Your task to perform on an android device: add a contact in the contacts app Image 0: 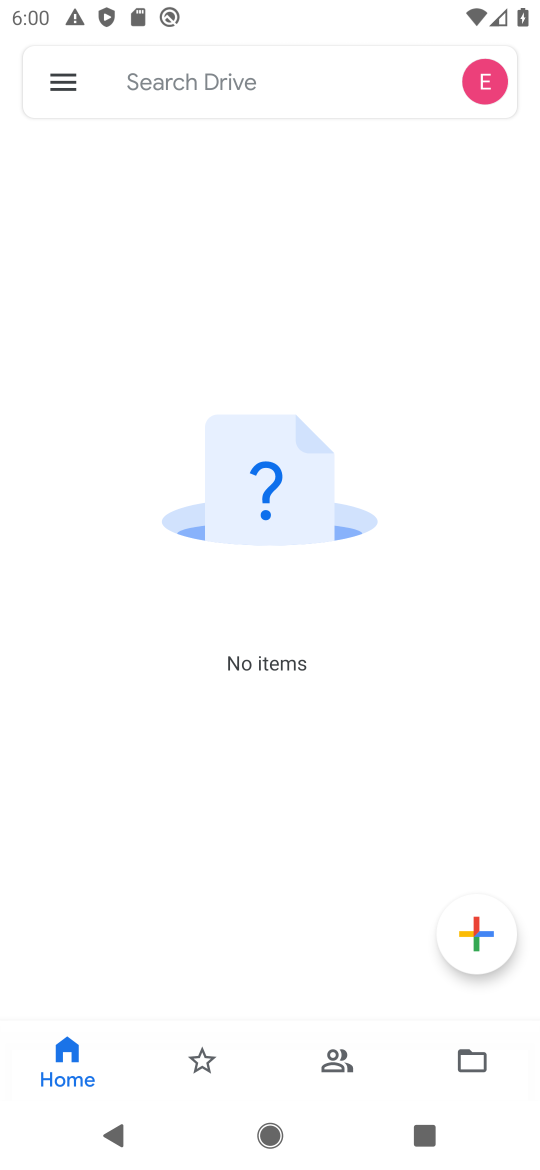
Step 0: press home button
Your task to perform on an android device: add a contact in the contacts app Image 1: 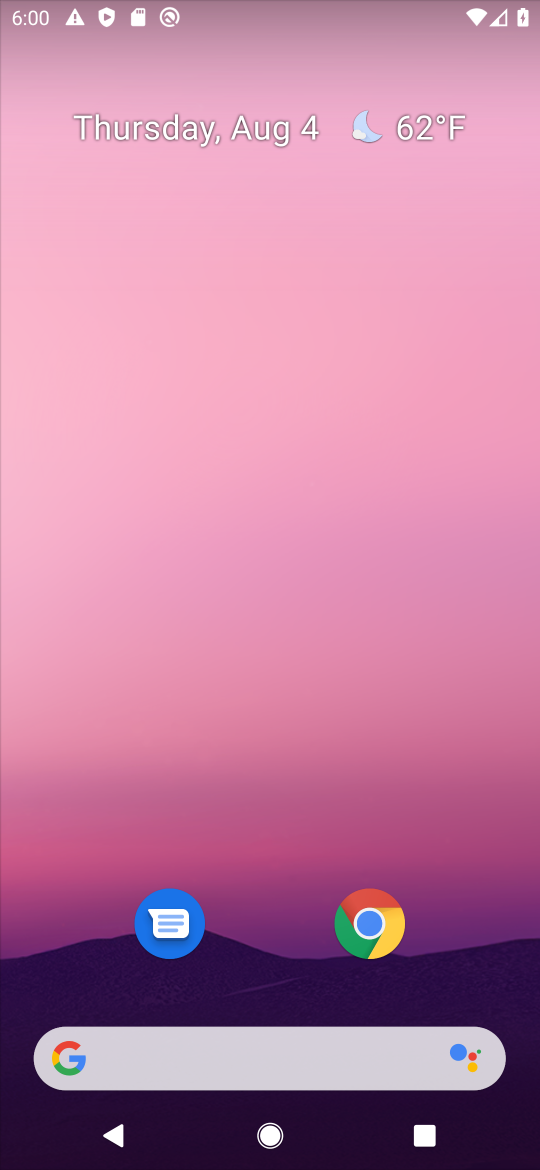
Step 1: drag from (465, 955) to (433, 258)
Your task to perform on an android device: add a contact in the contacts app Image 2: 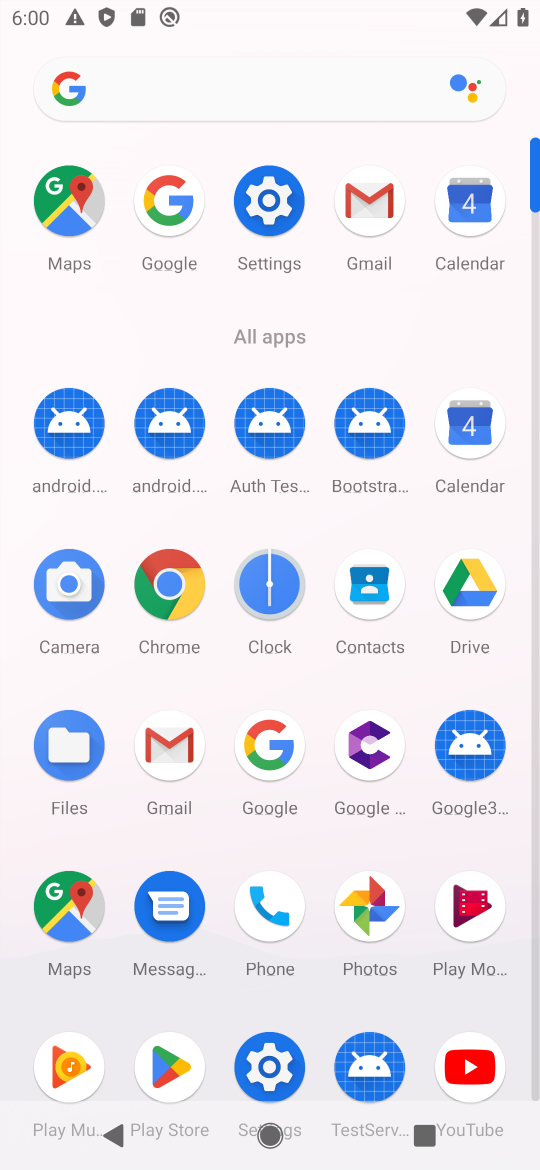
Step 2: click (371, 603)
Your task to perform on an android device: add a contact in the contacts app Image 3: 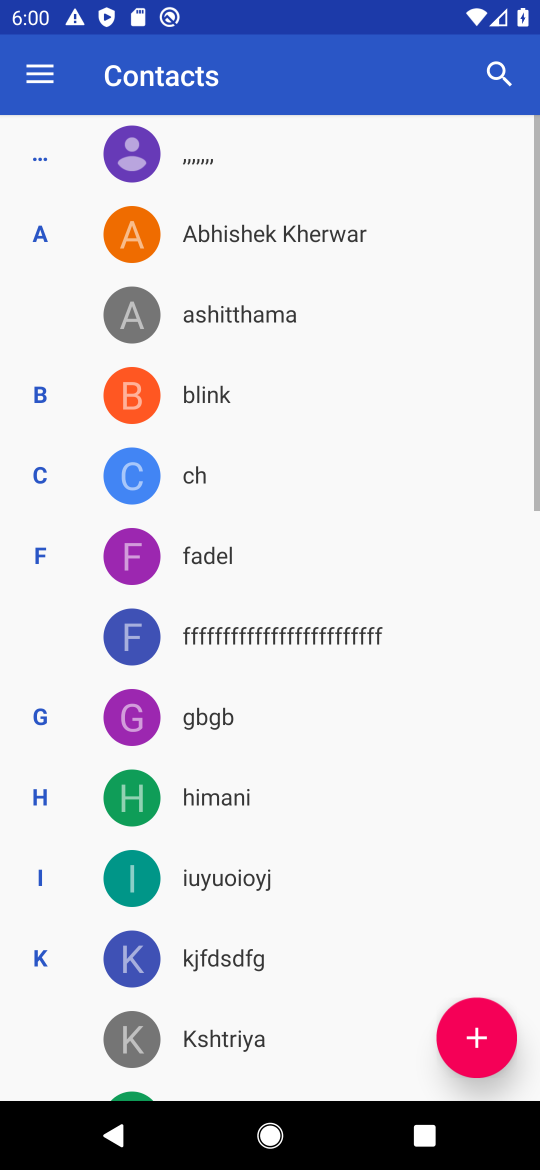
Step 3: click (371, 603)
Your task to perform on an android device: add a contact in the contacts app Image 4: 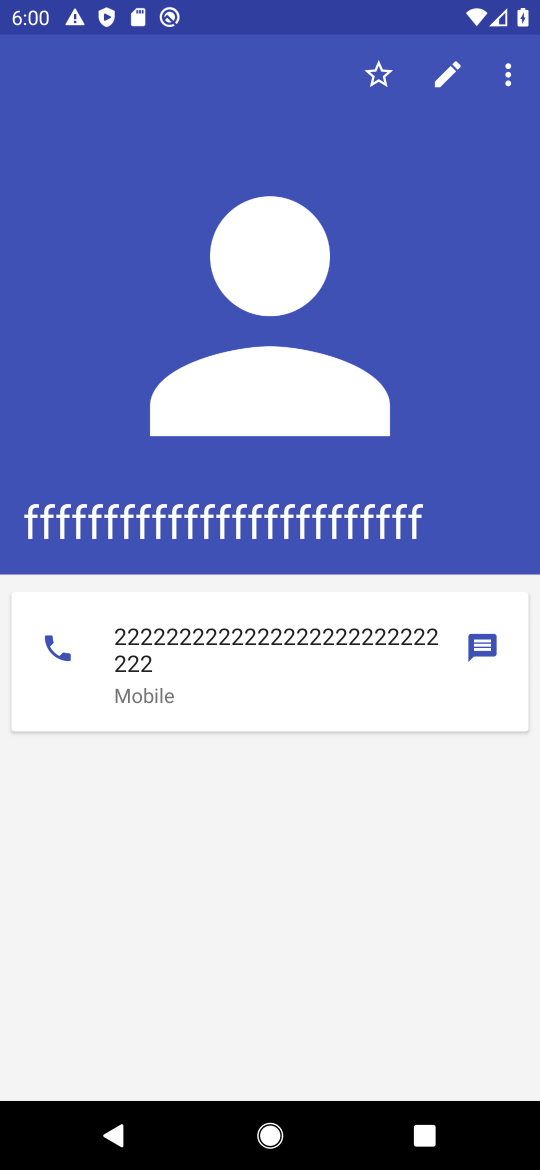
Step 4: press back button
Your task to perform on an android device: add a contact in the contacts app Image 5: 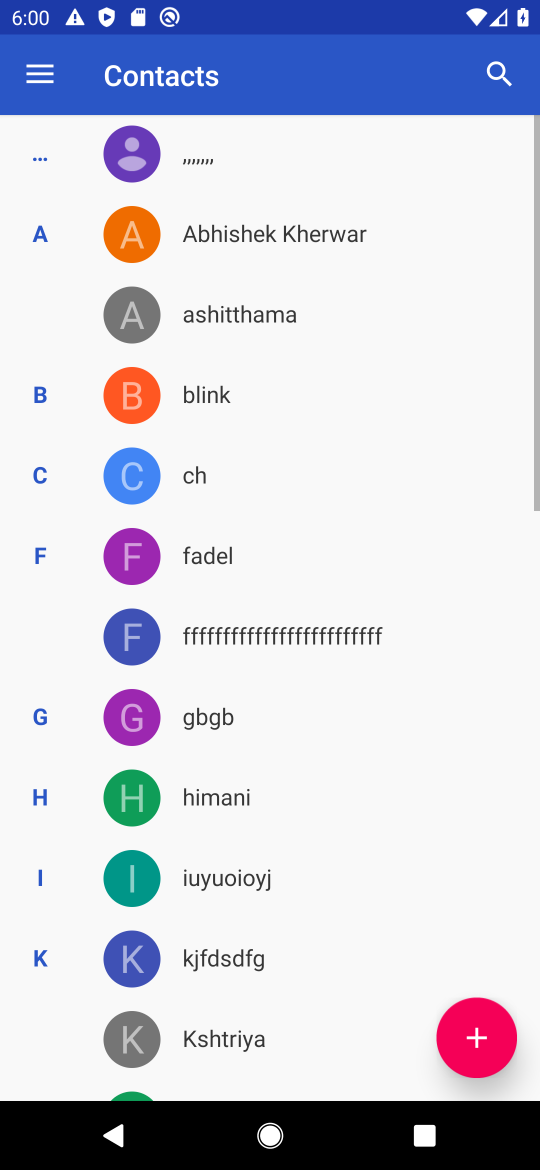
Step 5: click (493, 1034)
Your task to perform on an android device: add a contact in the contacts app Image 6: 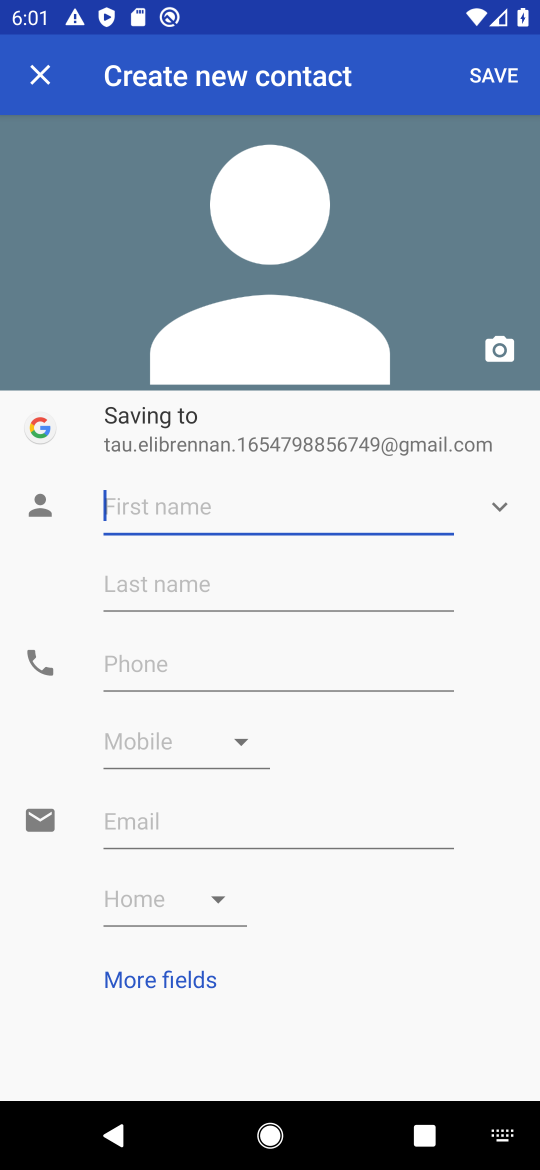
Step 6: type "reerr"
Your task to perform on an android device: add a contact in the contacts app Image 7: 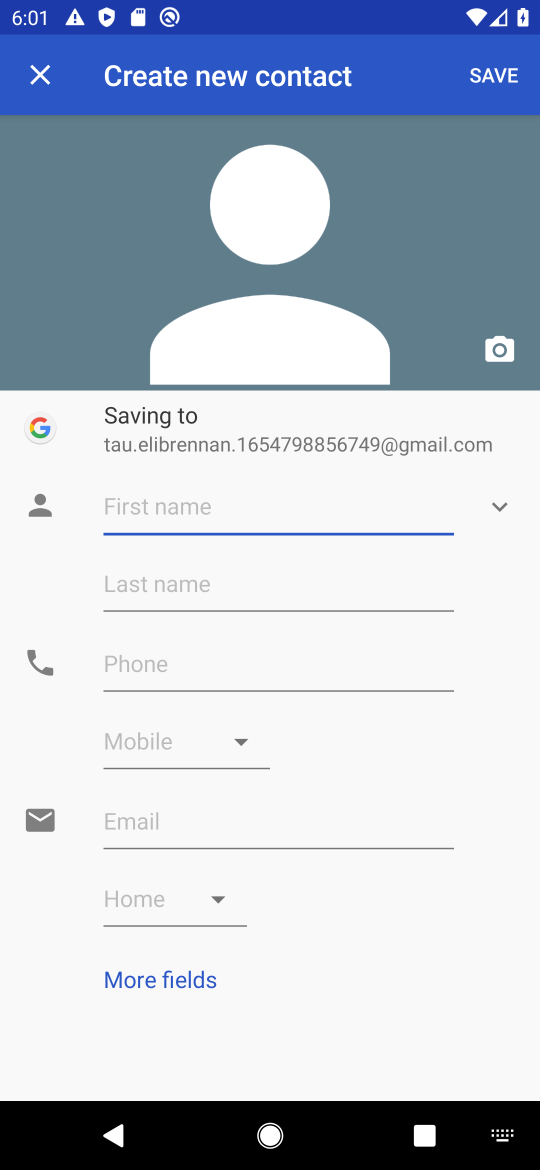
Step 7: click (237, 666)
Your task to perform on an android device: add a contact in the contacts app Image 8: 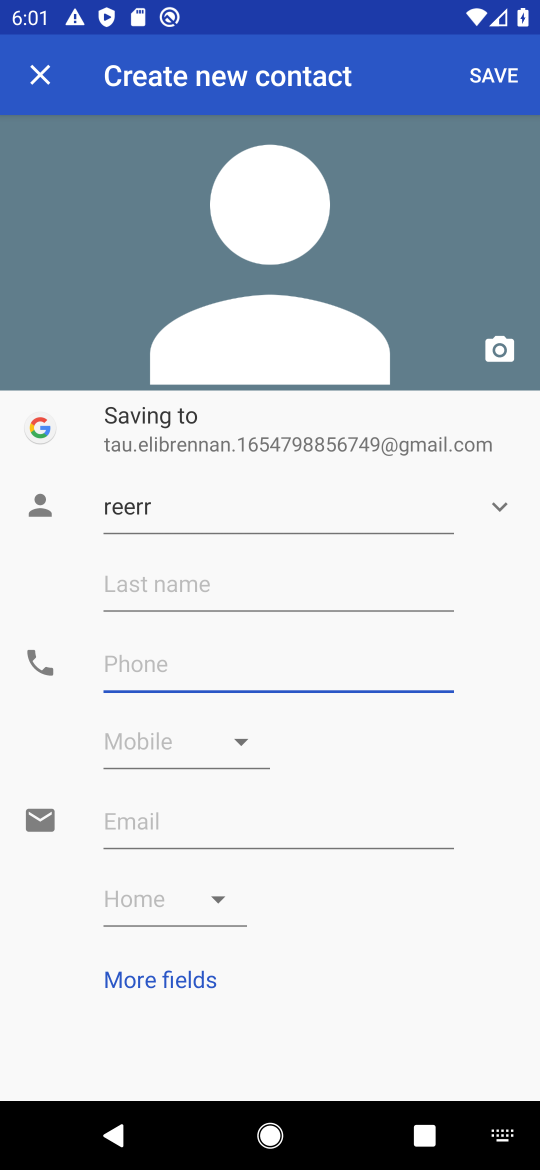
Step 8: type "5554443333"
Your task to perform on an android device: add a contact in the contacts app Image 9: 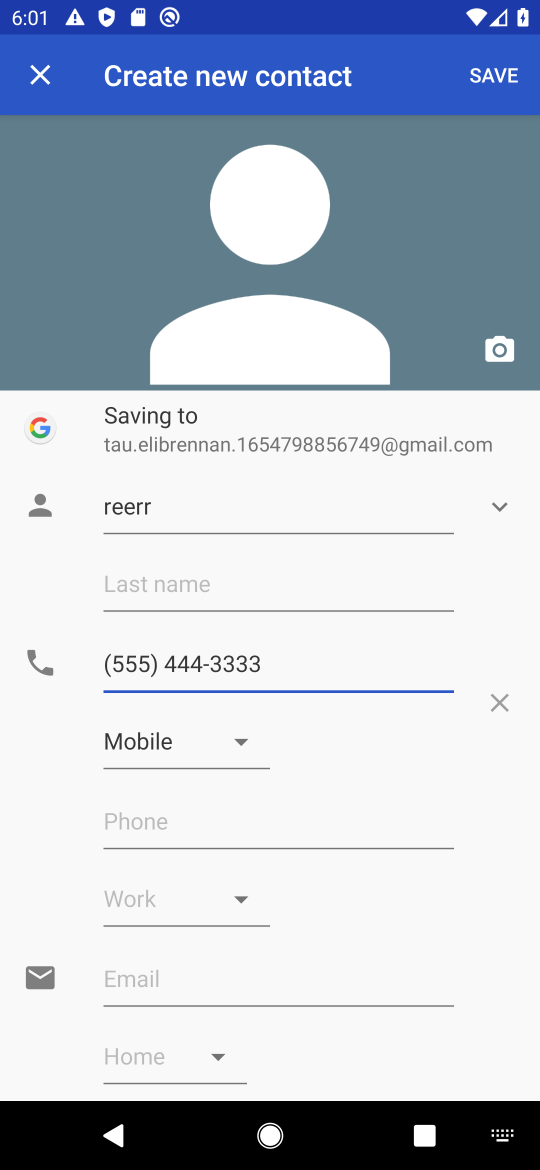
Step 9: click (502, 89)
Your task to perform on an android device: add a contact in the contacts app Image 10: 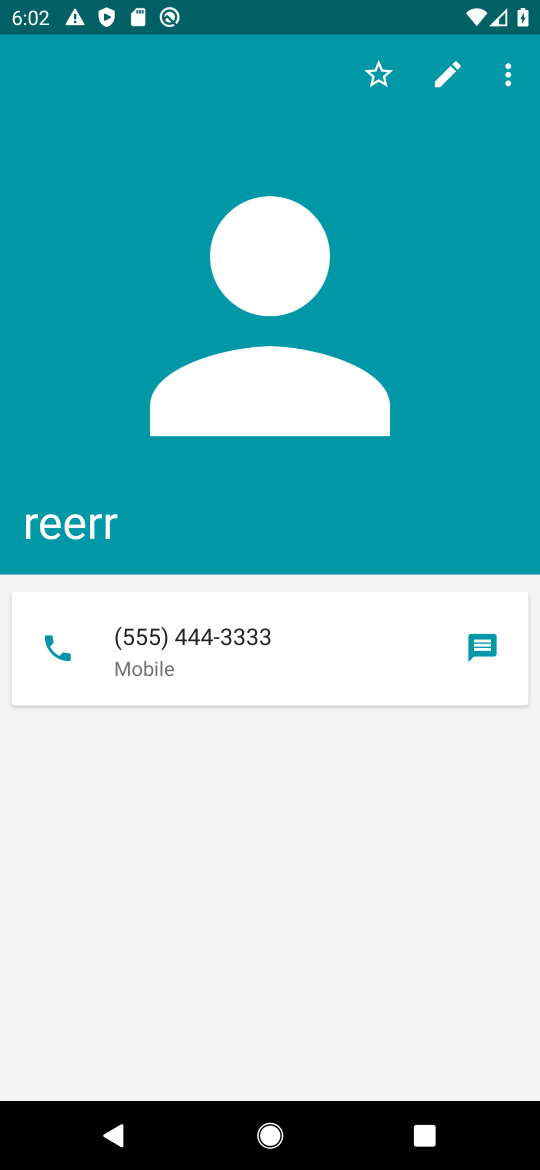
Step 10: task complete